Your task to perform on an android device: add a label to a message in the gmail app Image 0: 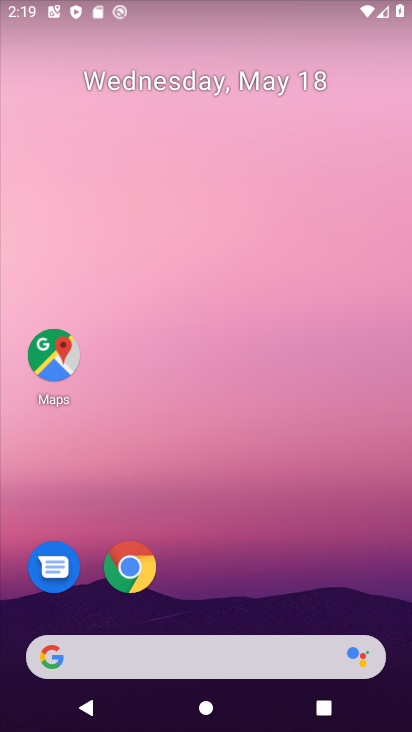
Step 0: drag from (298, 583) to (289, 170)
Your task to perform on an android device: add a label to a message in the gmail app Image 1: 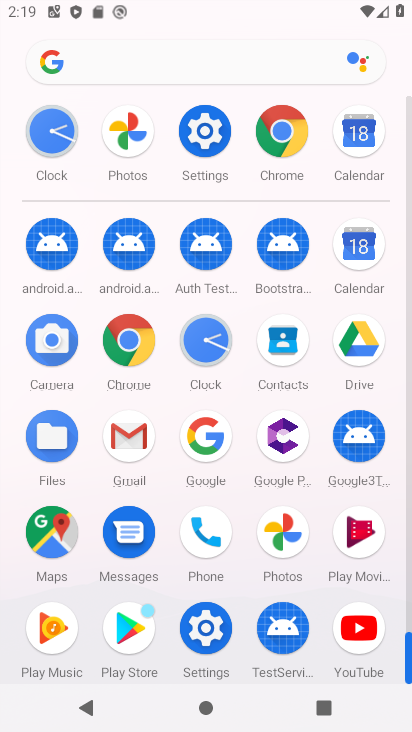
Step 1: click (147, 434)
Your task to perform on an android device: add a label to a message in the gmail app Image 2: 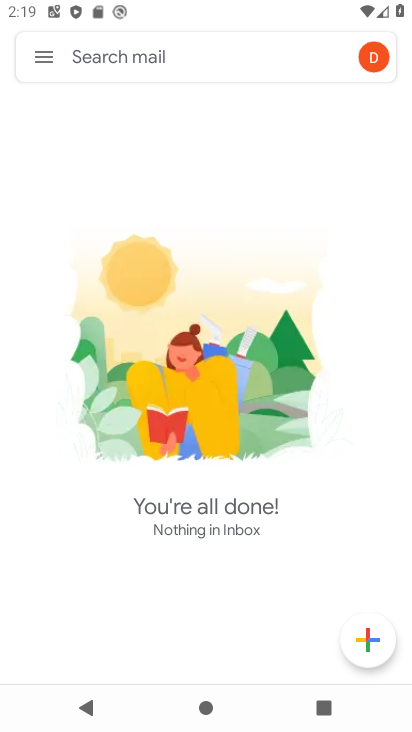
Step 2: click (55, 52)
Your task to perform on an android device: add a label to a message in the gmail app Image 3: 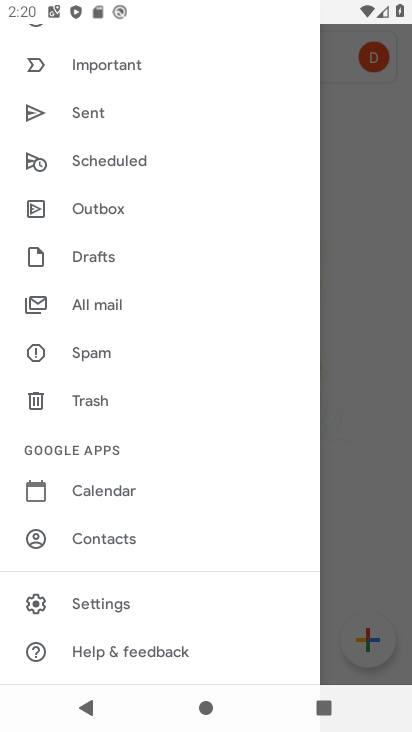
Step 3: drag from (114, 287) to (260, 233)
Your task to perform on an android device: add a label to a message in the gmail app Image 4: 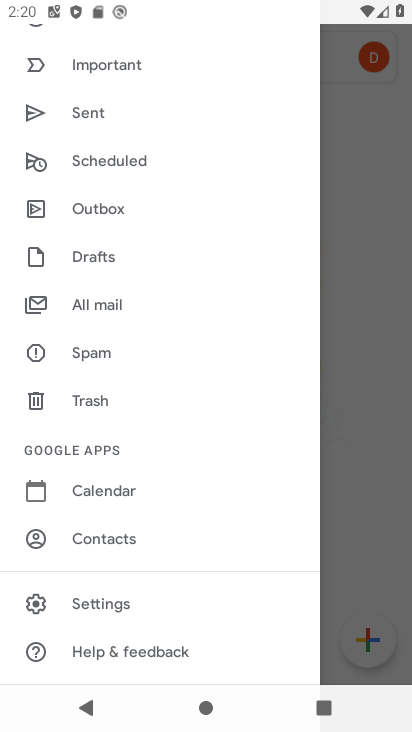
Step 4: drag from (239, 256) to (217, 612)
Your task to perform on an android device: add a label to a message in the gmail app Image 5: 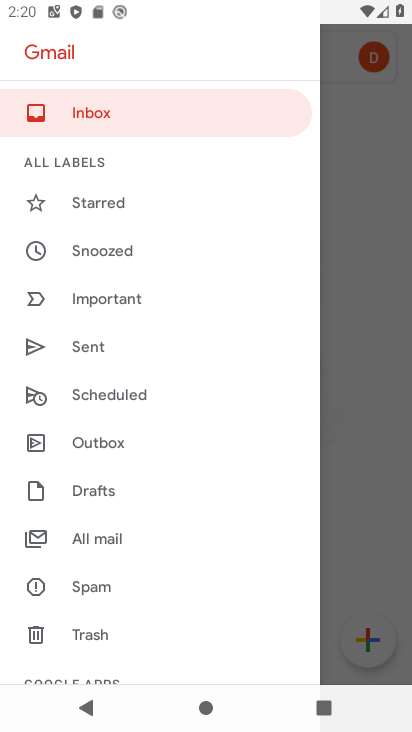
Step 5: click (92, 529)
Your task to perform on an android device: add a label to a message in the gmail app Image 6: 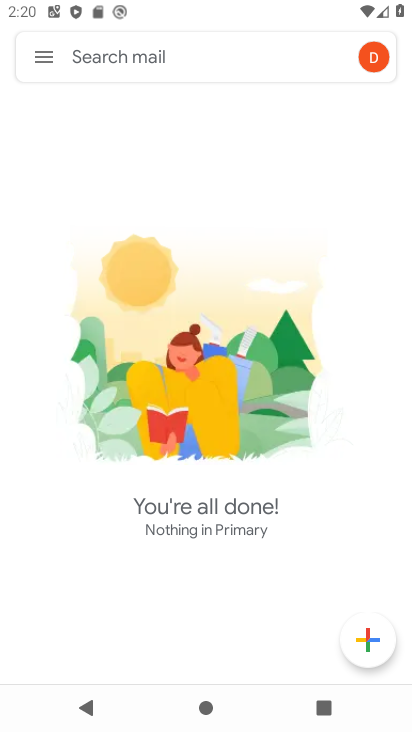
Step 6: task complete